Your task to perform on an android device: Go to notification settings Image 0: 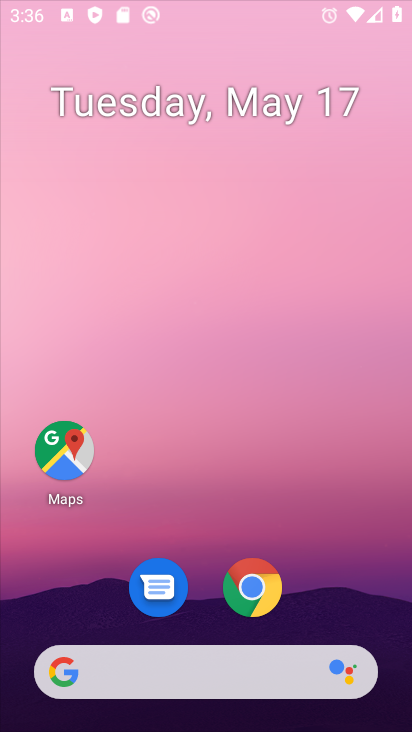
Step 0: drag from (195, 629) to (234, 190)
Your task to perform on an android device: Go to notification settings Image 1: 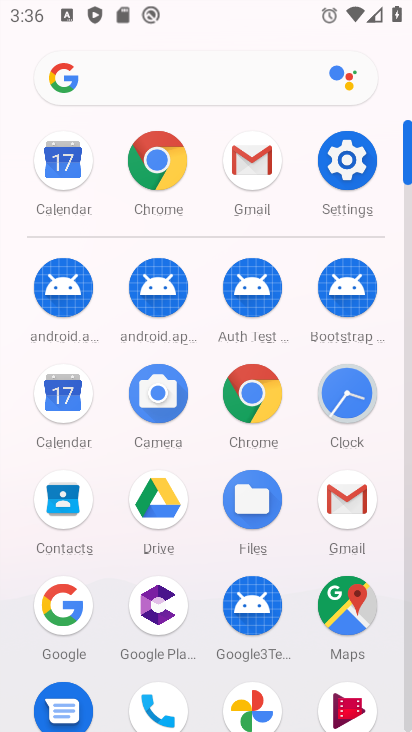
Step 1: click (353, 153)
Your task to perform on an android device: Go to notification settings Image 2: 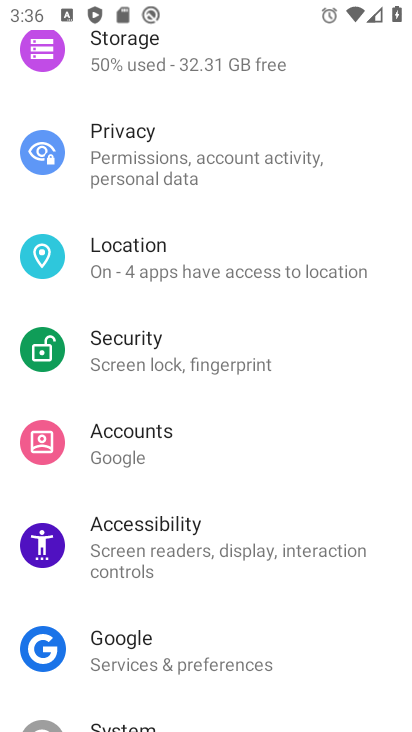
Step 2: drag from (263, 244) to (286, 491)
Your task to perform on an android device: Go to notification settings Image 3: 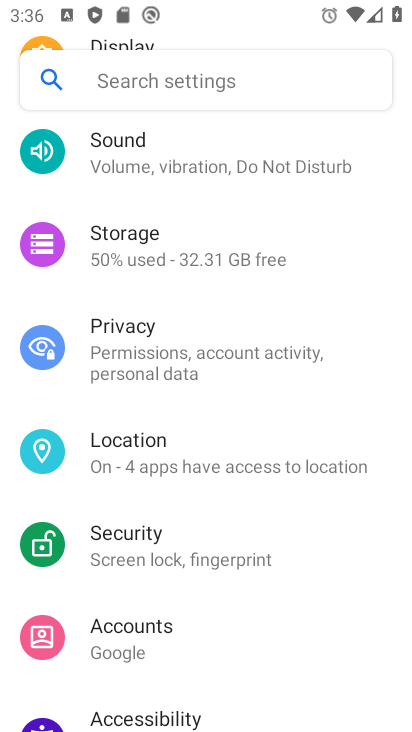
Step 3: drag from (298, 225) to (325, 727)
Your task to perform on an android device: Go to notification settings Image 4: 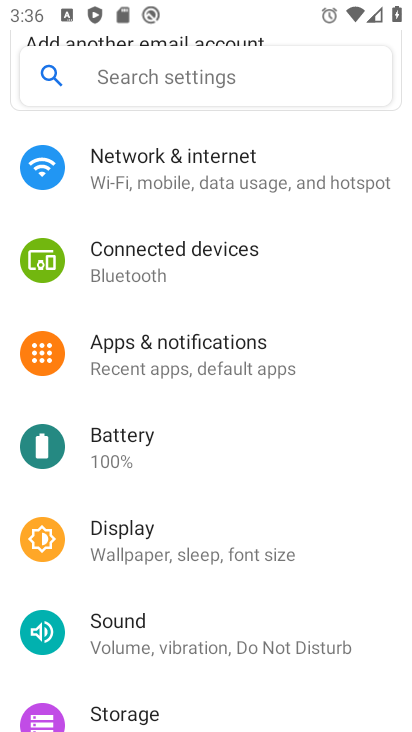
Step 4: click (162, 359)
Your task to perform on an android device: Go to notification settings Image 5: 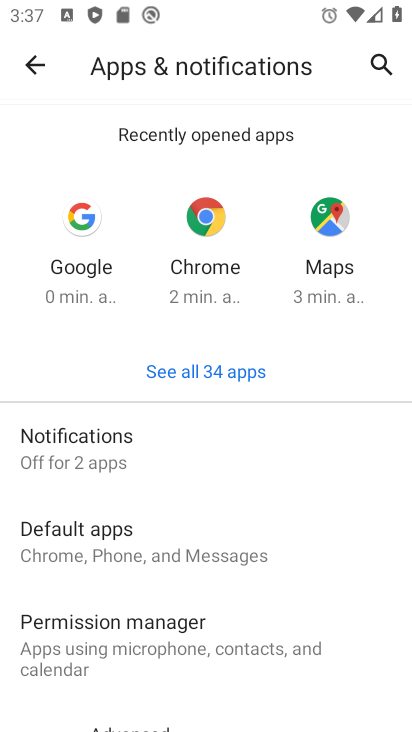
Step 5: click (177, 467)
Your task to perform on an android device: Go to notification settings Image 6: 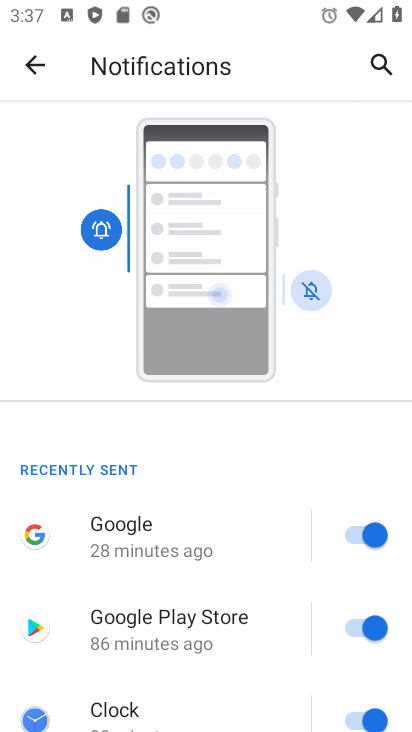
Step 6: drag from (234, 683) to (334, 227)
Your task to perform on an android device: Go to notification settings Image 7: 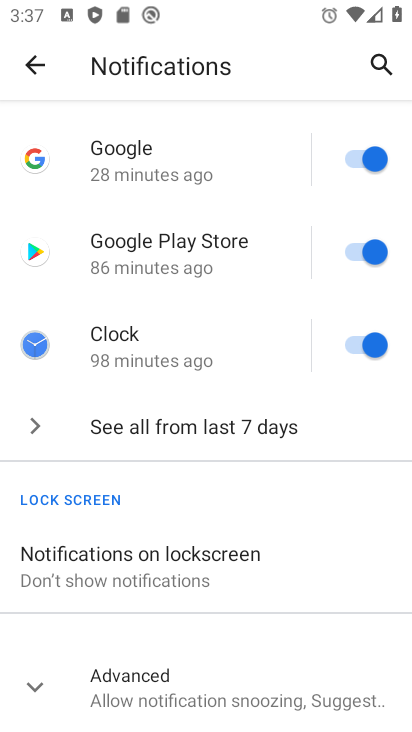
Step 7: click (369, 349)
Your task to perform on an android device: Go to notification settings Image 8: 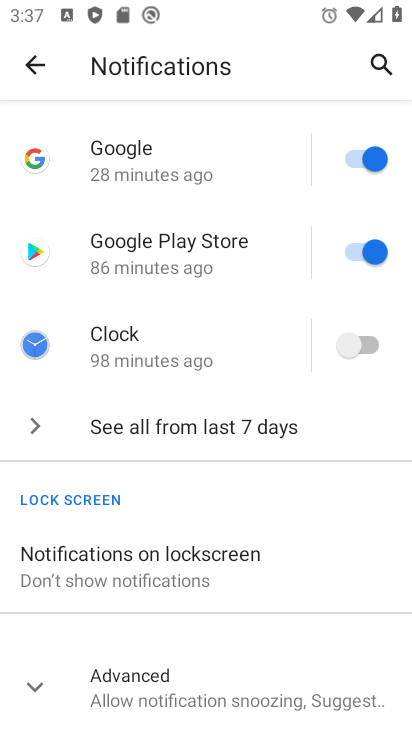
Step 8: task complete